Your task to perform on an android device: Open Chrome and go to the settings page Image 0: 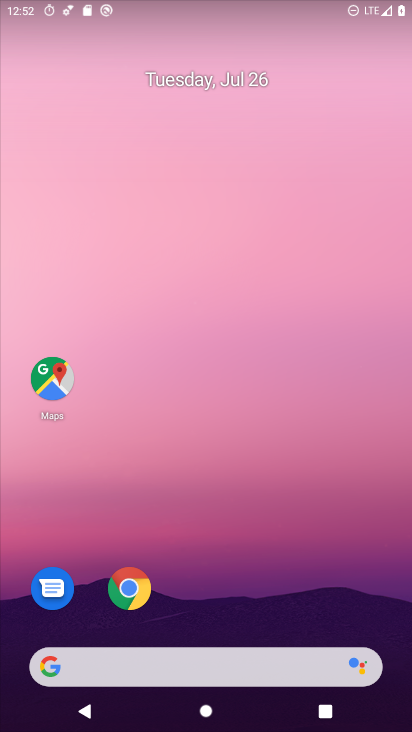
Step 0: drag from (224, 599) to (276, 147)
Your task to perform on an android device: Open Chrome and go to the settings page Image 1: 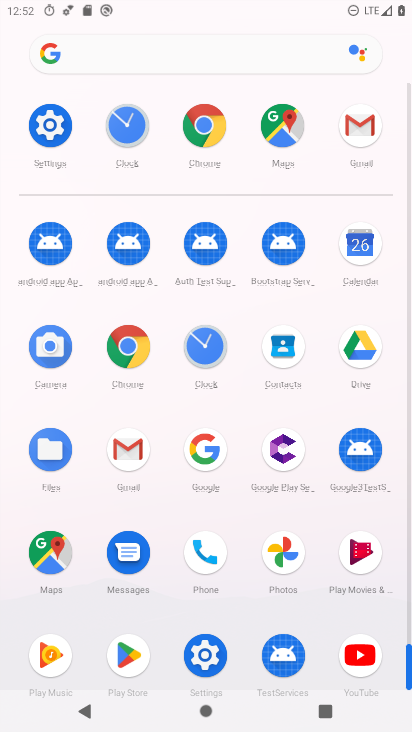
Step 1: click (123, 365)
Your task to perform on an android device: Open Chrome and go to the settings page Image 2: 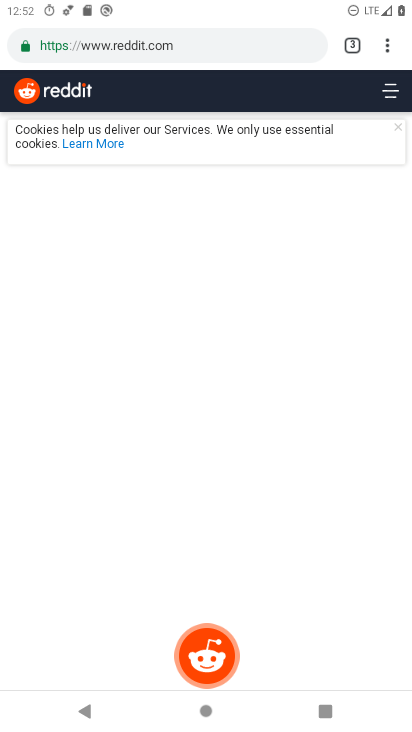
Step 2: click (381, 43)
Your task to perform on an android device: Open Chrome and go to the settings page Image 3: 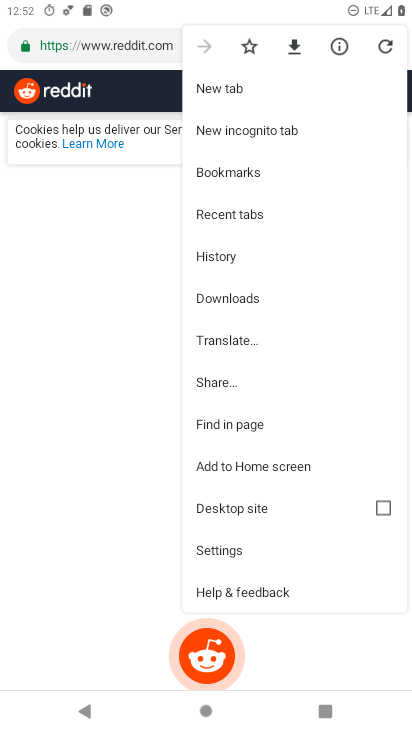
Step 3: click (228, 555)
Your task to perform on an android device: Open Chrome and go to the settings page Image 4: 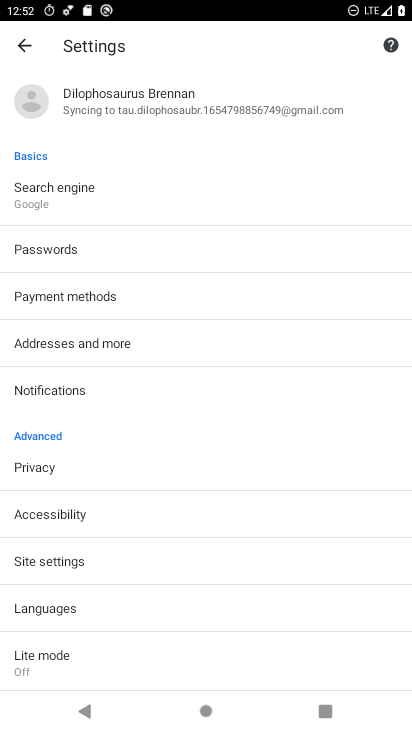
Step 4: task complete